Your task to perform on an android device: toggle javascript in the chrome app Image 0: 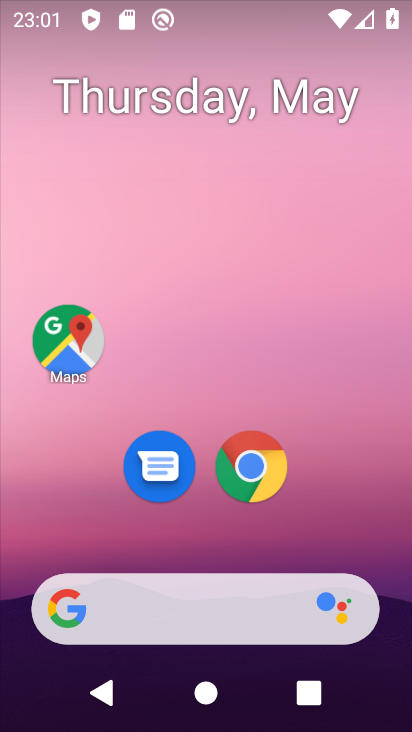
Step 0: drag from (344, 500) to (299, 77)
Your task to perform on an android device: toggle javascript in the chrome app Image 1: 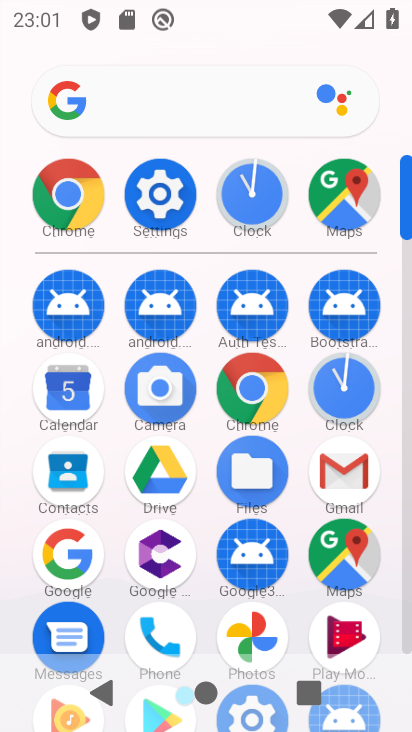
Step 1: click (250, 377)
Your task to perform on an android device: toggle javascript in the chrome app Image 2: 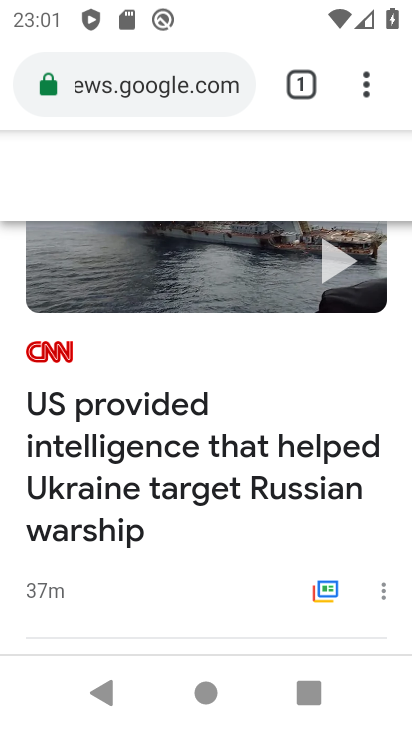
Step 2: drag from (371, 87) to (133, 499)
Your task to perform on an android device: toggle javascript in the chrome app Image 3: 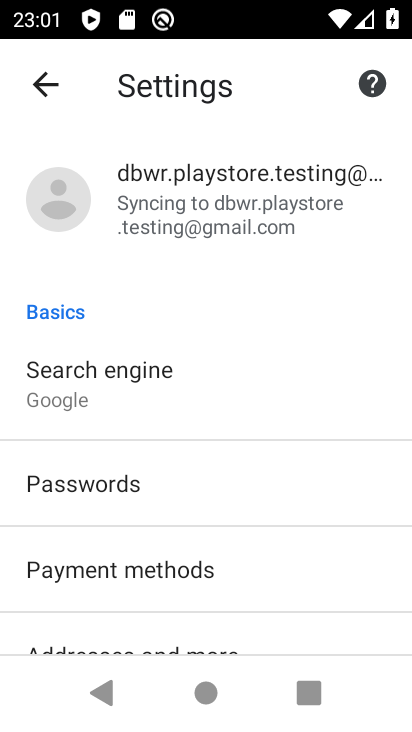
Step 3: drag from (244, 552) to (172, 37)
Your task to perform on an android device: toggle javascript in the chrome app Image 4: 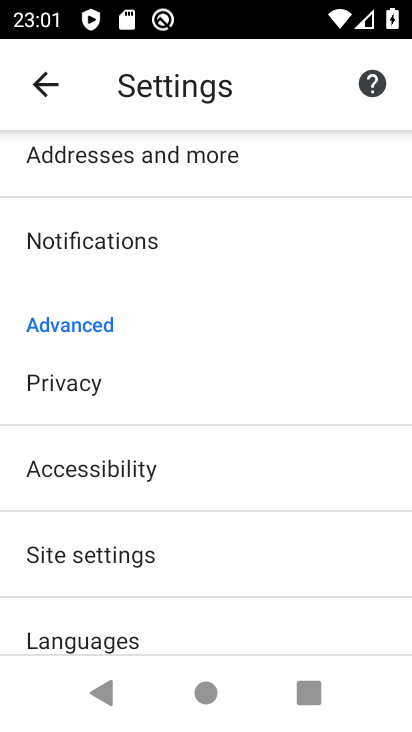
Step 4: click (114, 541)
Your task to perform on an android device: toggle javascript in the chrome app Image 5: 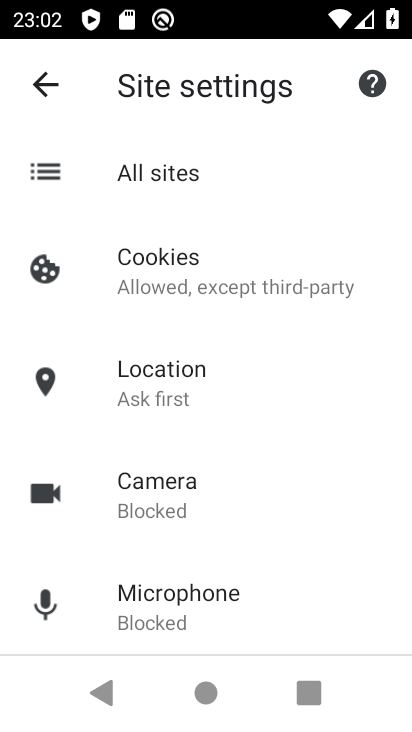
Step 5: drag from (192, 524) to (216, 138)
Your task to perform on an android device: toggle javascript in the chrome app Image 6: 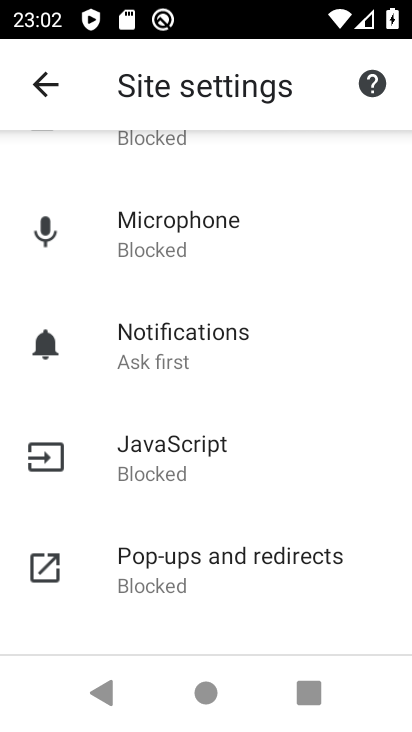
Step 6: click (148, 446)
Your task to perform on an android device: toggle javascript in the chrome app Image 7: 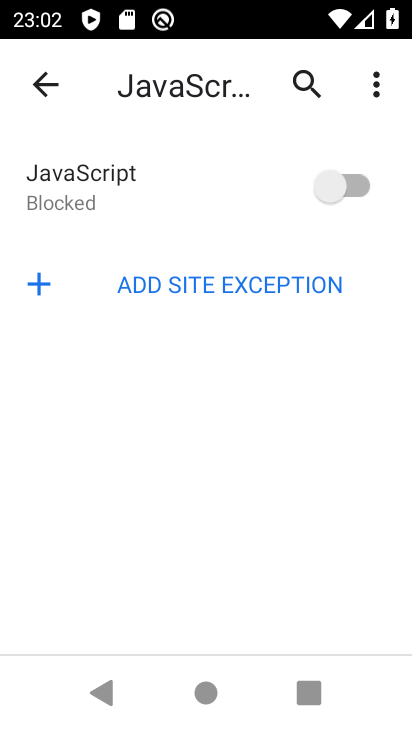
Step 7: click (347, 178)
Your task to perform on an android device: toggle javascript in the chrome app Image 8: 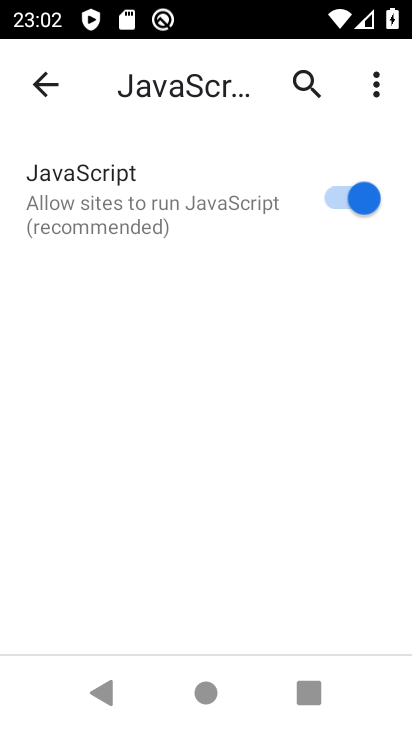
Step 8: task complete